Your task to perform on an android device: Open Maps and search for coffee Image 0: 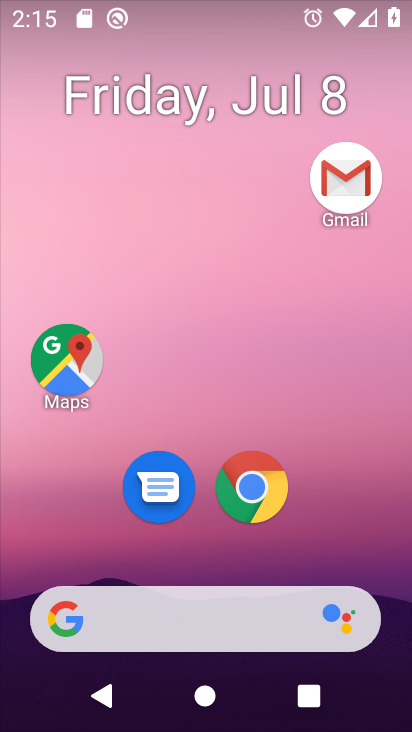
Step 0: drag from (357, 519) to (399, 121)
Your task to perform on an android device: Open Maps and search for coffee Image 1: 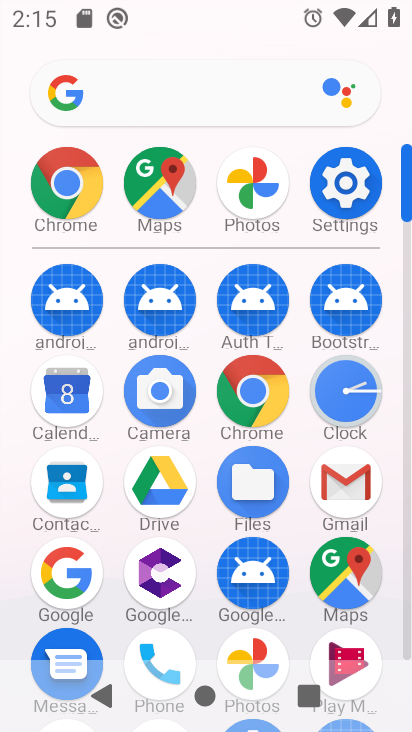
Step 1: click (367, 570)
Your task to perform on an android device: Open Maps and search for coffee Image 2: 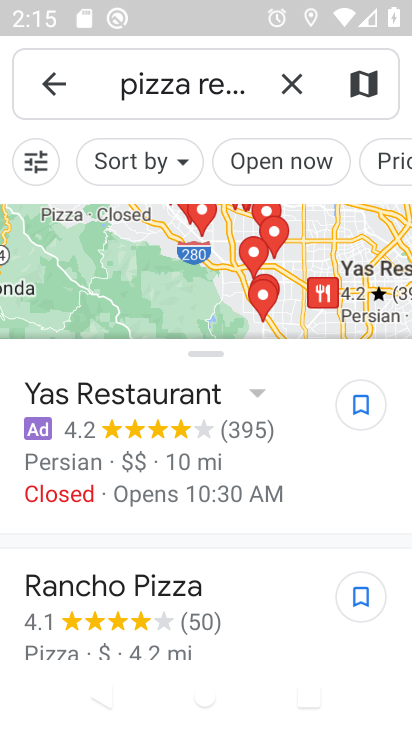
Step 2: press back button
Your task to perform on an android device: Open Maps and search for coffee Image 3: 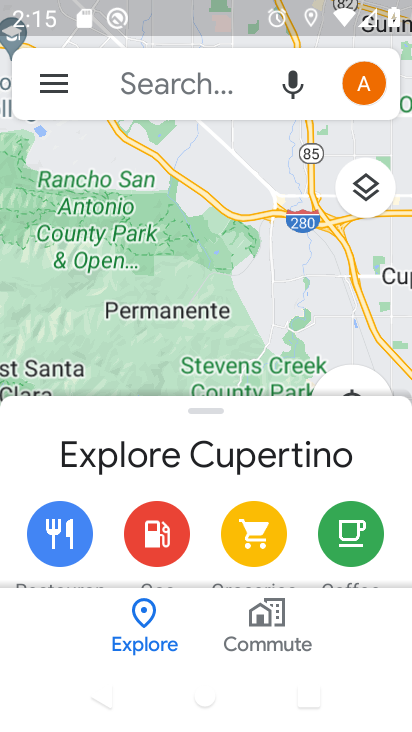
Step 3: click (203, 71)
Your task to perform on an android device: Open Maps and search for coffee Image 4: 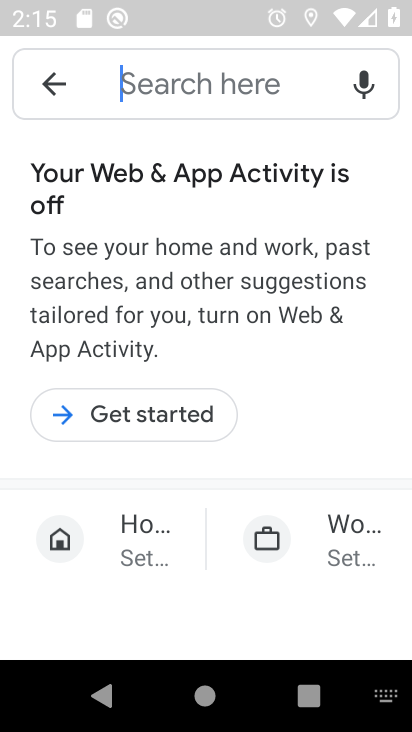
Step 4: type "coffee"
Your task to perform on an android device: Open Maps and search for coffee Image 5: 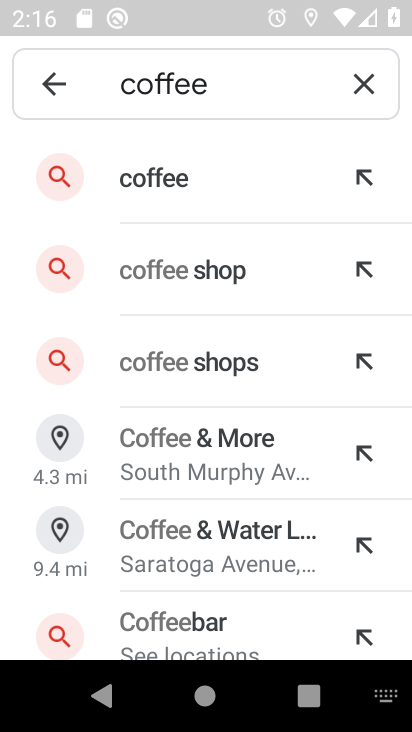
Step 5: click (182, 174)
Your task to perform on an android device: Open Maps and search for coffee Image 6: 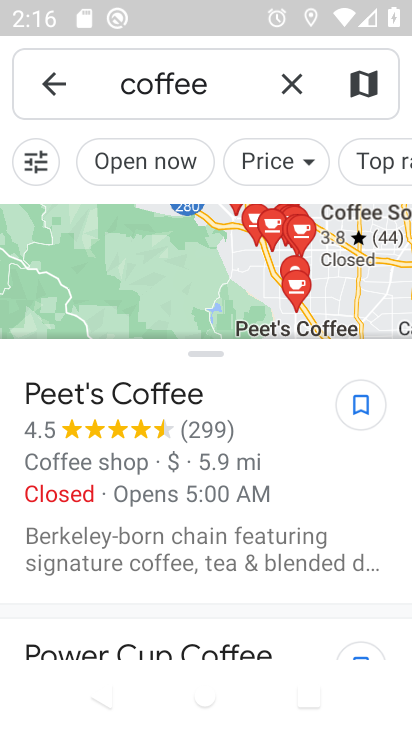
Step 6: task complete